Your task to perform on an android device: Open CNN.com Image 0: 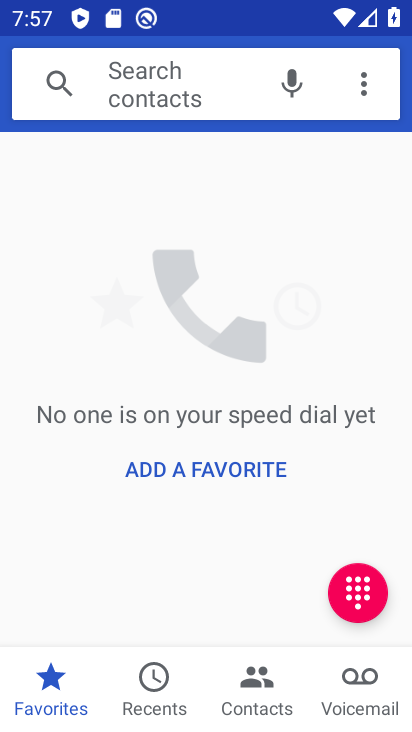
Step 0: press home button
Your task to perform on an android device: Open CNN.com Image 1: 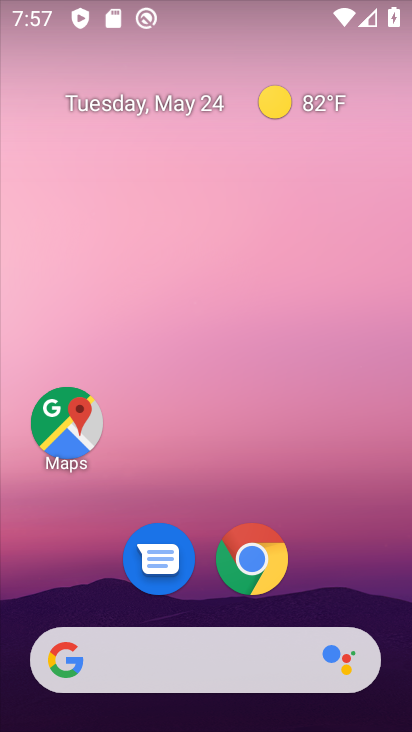
Step 1: drag from (369, 608) to (375, 224)
Your task to perform on an android device: Open CNN.com Image 2: 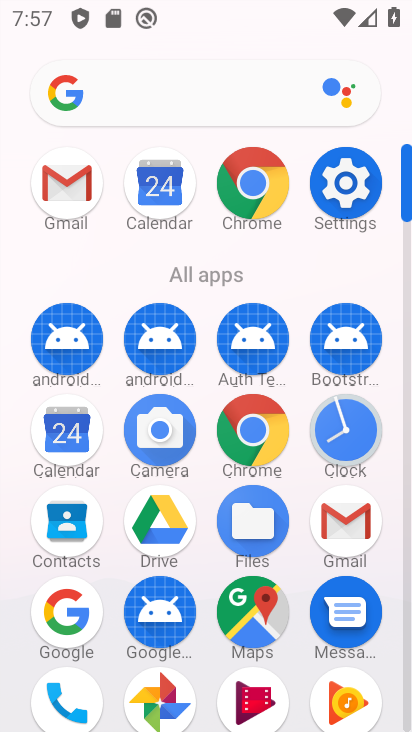
Step 2: click (252, 447)
Your task to perform on an android device: Open CNN.com Image 3: 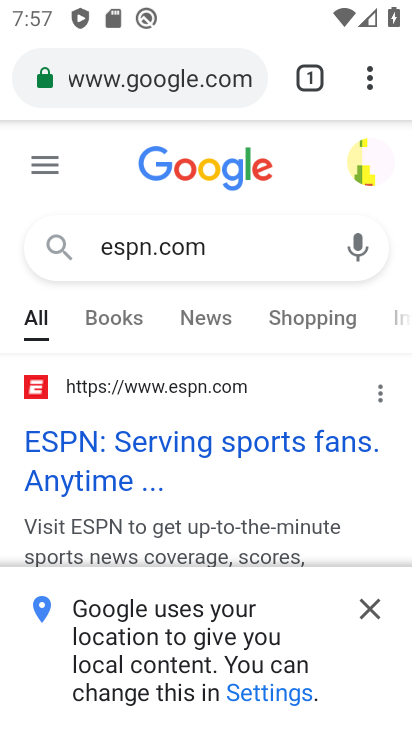
Step 3: click (205, 81)
Your task to perform on an android device: Open CNN.com Image 4: 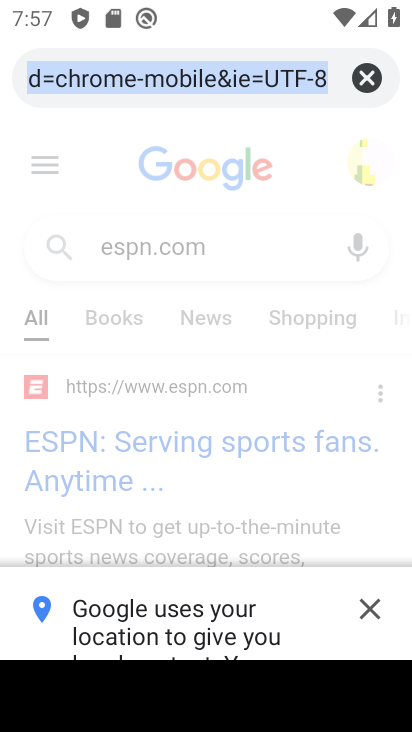
Step 4: click (365, 68)
Your task to perform on an android device: Open CNN.com Image 5: 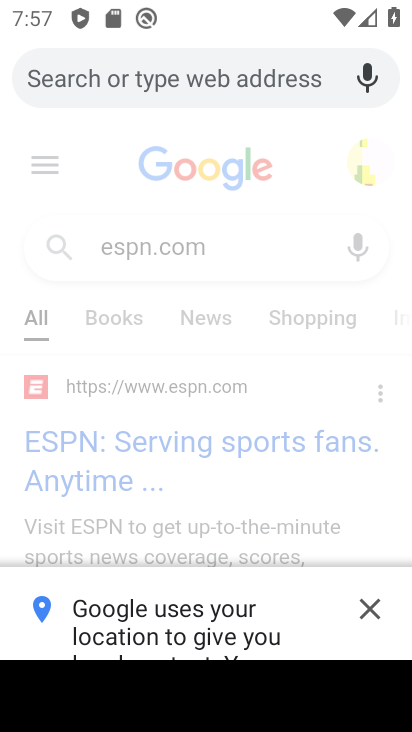
Step 5: type "cnn.com"
Your task to perform on an android device: Open CNN.com Image 6: 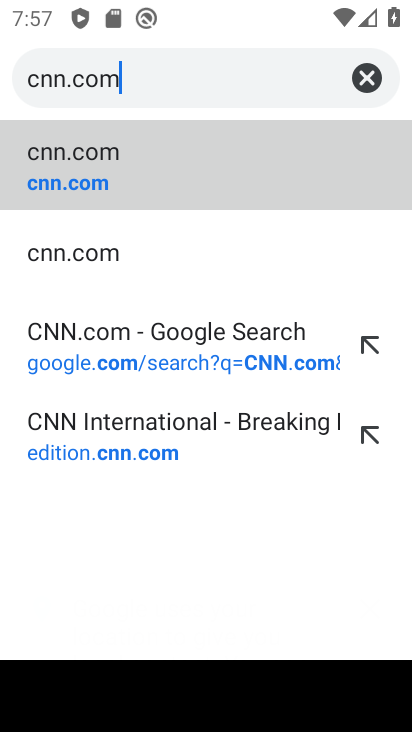
Step 6: click (101, 249)
Your task to perform on an android device: Open CNN.com Image 7: 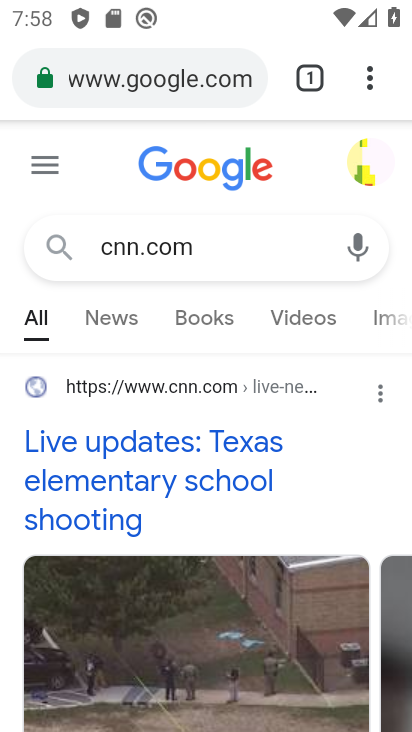
Step 7: task complete